Your task to perform on an android device: visit the assistant section in the google photos Image 0: 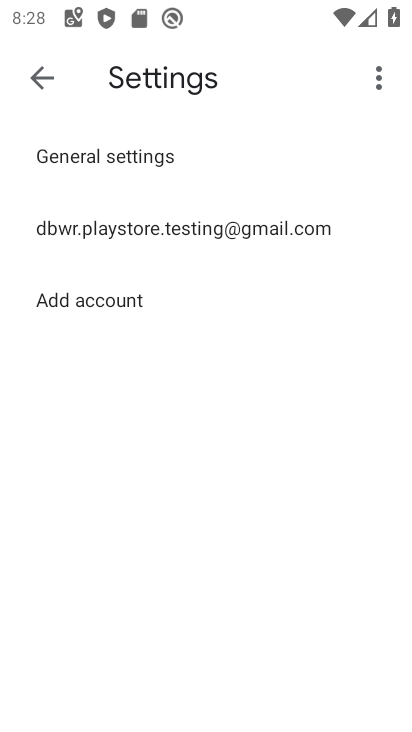
Step 0: press home button
Your task to perform on an android device: visit the assistant section in the google photos Image 1: 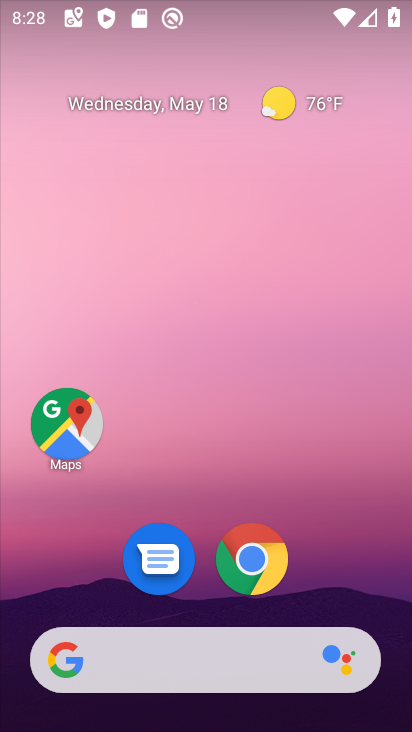
Step 1: drag from (335, 545) to (309, 52)
Your task to perform on an android device: visit the assistant section in the google photos Image 2: 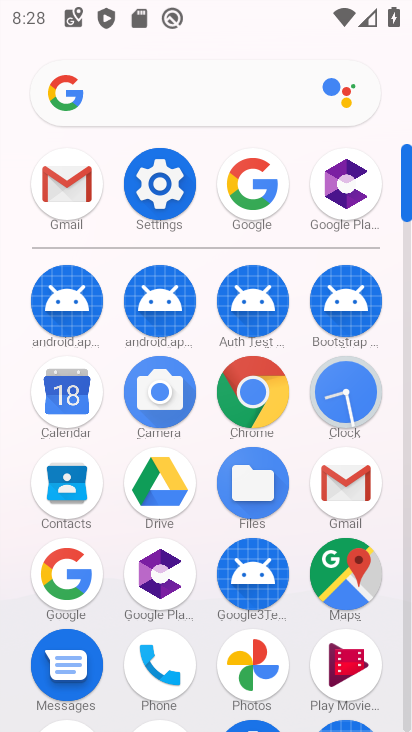
Step 2: click (251, 659)
Your task to perform on an android device: visit the assistant section in the google photos Image 3: 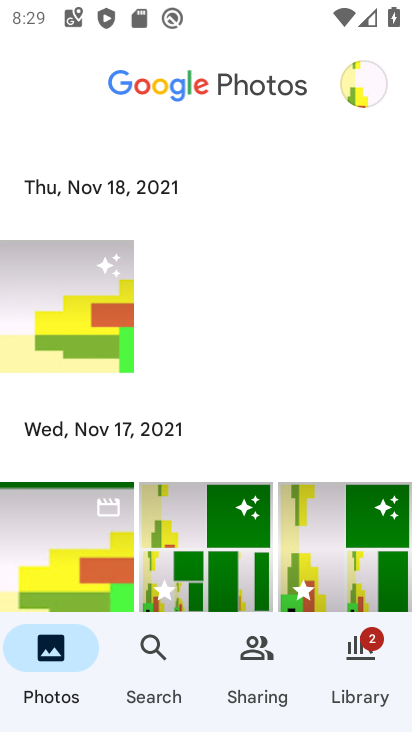
Step 3: click (360, 662)
Your task to perform on an android device: visit the assistant section in the google photos Image 4: 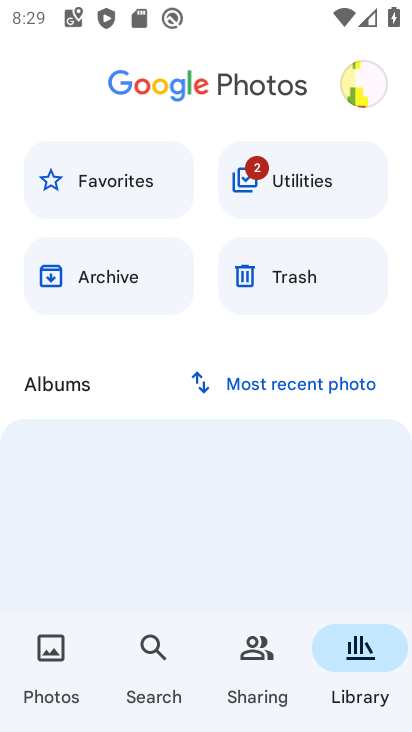
Step 4: drag from (191, 373) to (164, 45)
Your task to perform on an android device: visit the assistant section in the google photos Image 5: 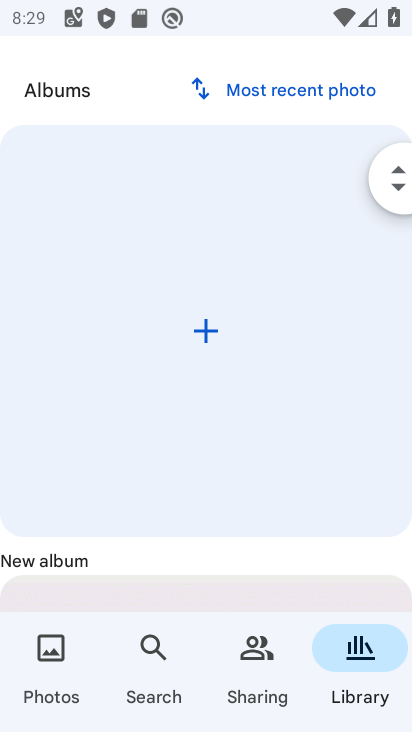
Step 5: click (166, 666)
Your task to perform on an android device: visit the assistant section in the google photos Image 6: 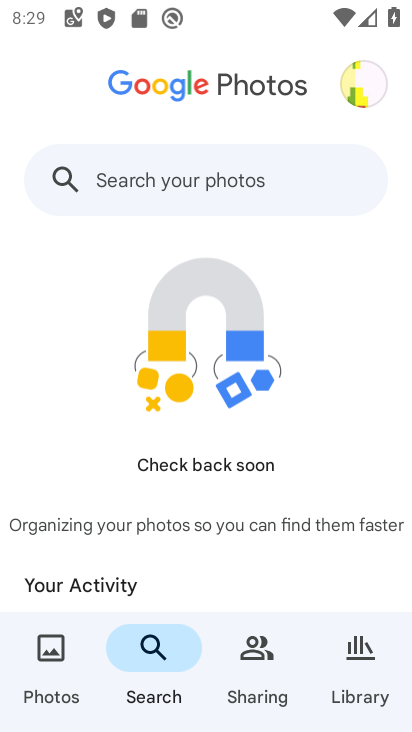
Step 6: drag from (258, 504) to (260, 119)
Your task to perform on an android device: visit the assistant section in the google photos Image 7: 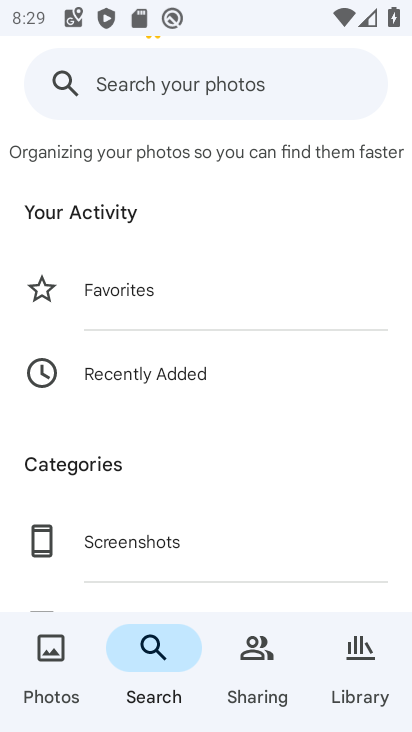
Step 7: drag from (230, 547) to (236, 82)
Your task to perform on an android device: visit the assistant section in the google photos Image 8: 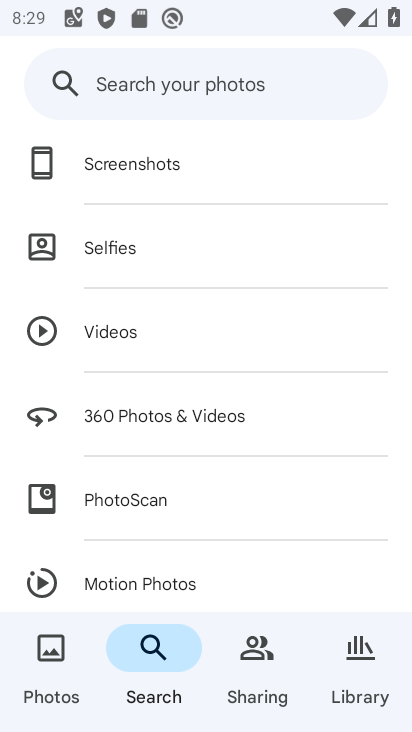
Step 8: drag from (178, 599) to (248, 79)
Your task to perform on an android device: visit the assistant section in the google photos Image 9: 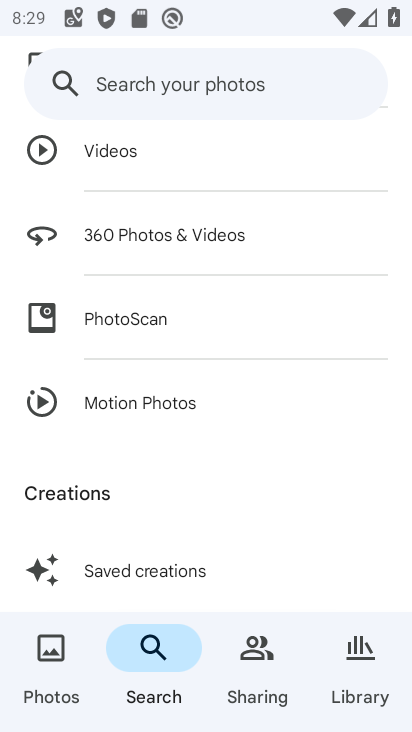
Step 9: click (249, 707)
Your task to perform on an android device: visit the assistant section in the google photos Image 10: 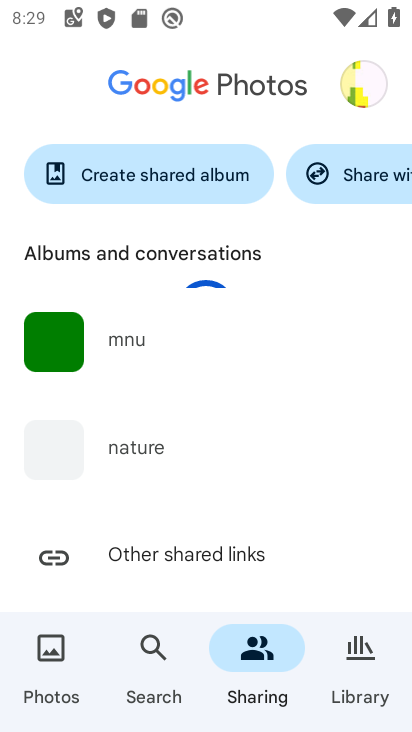
Step 10: drag from (302, 466) to (290, 286)
Your task to perform on an android device: visit the assistant section in the google photos Image 11: 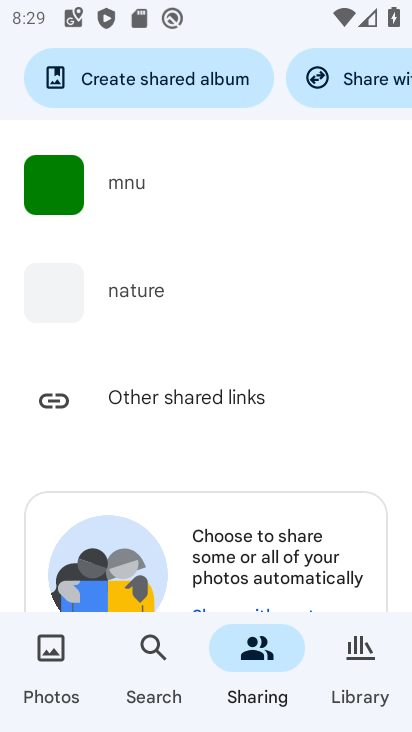
Step 11: drag from (313, 71) to (13, 91)
Your task to perform on an android device: visit the assistant section in the google photos Image 12: 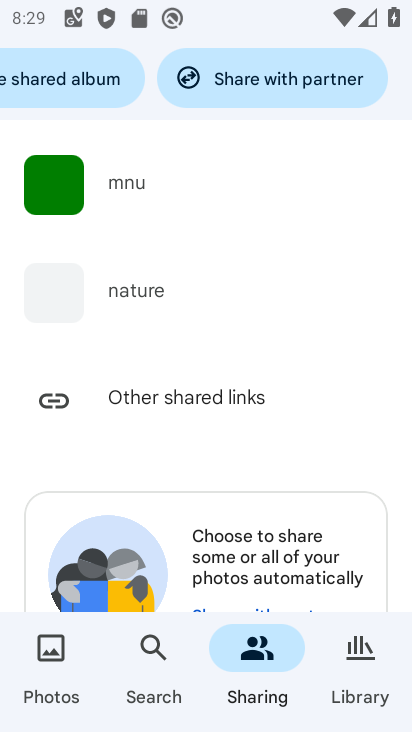
Step 12: click (55, 692)
Your task to perform on an android device: visit the assistant section in the google photos Image 13: 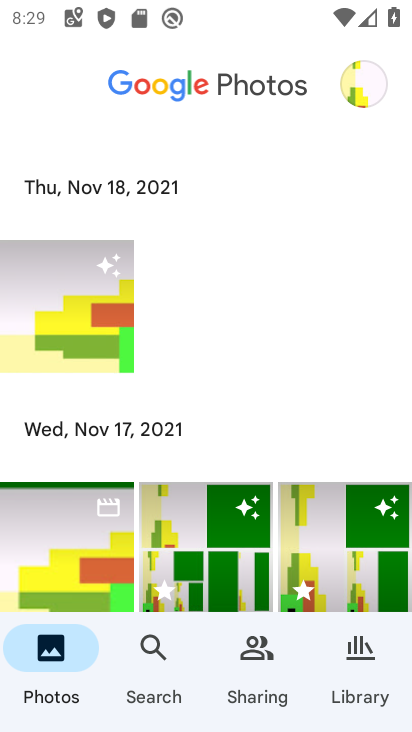
Step 13: task complete